Your task to perform on an android device: toggle show notifications on the lock screen Image 0: 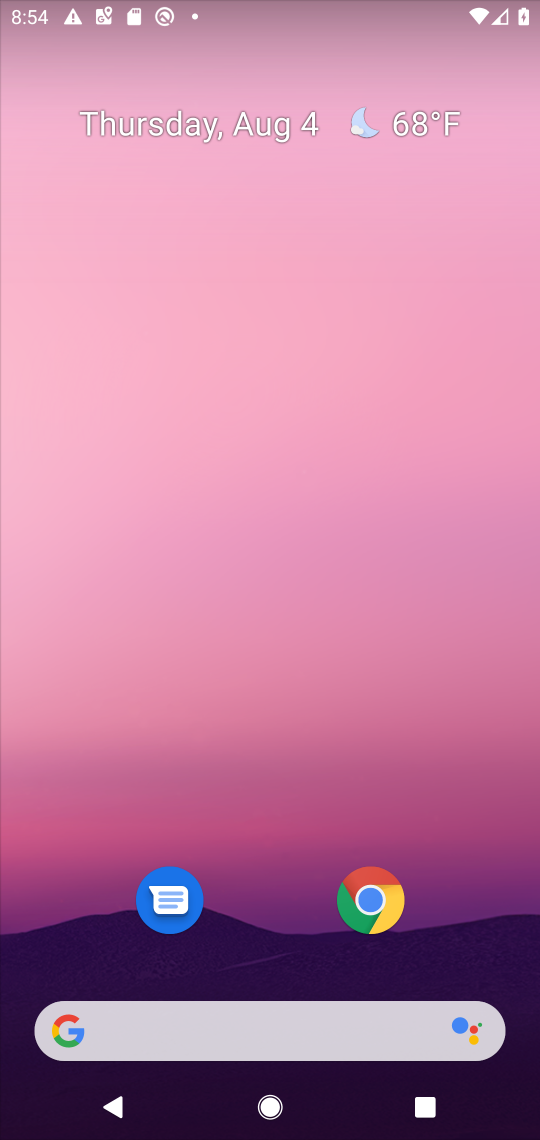
Step 0: drag from (263, 942) to (219, 399)
Your task to perform on an android device: toggle show notifications on the lock screen Image 1: 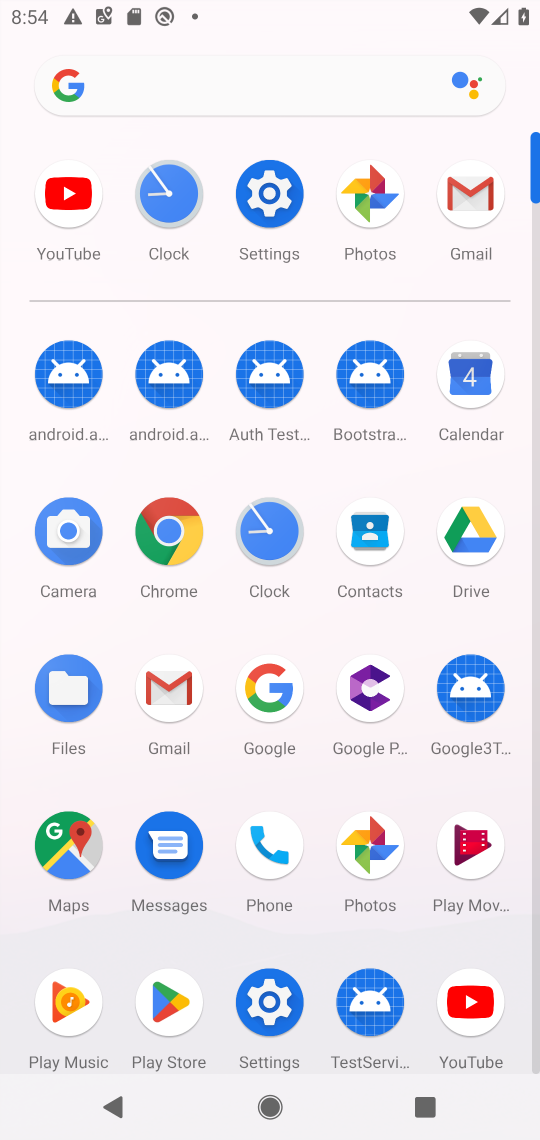
Step 1: click (264, 205)
Your task to perform on an android device: toggle show notifications on the lock screen Image 2: 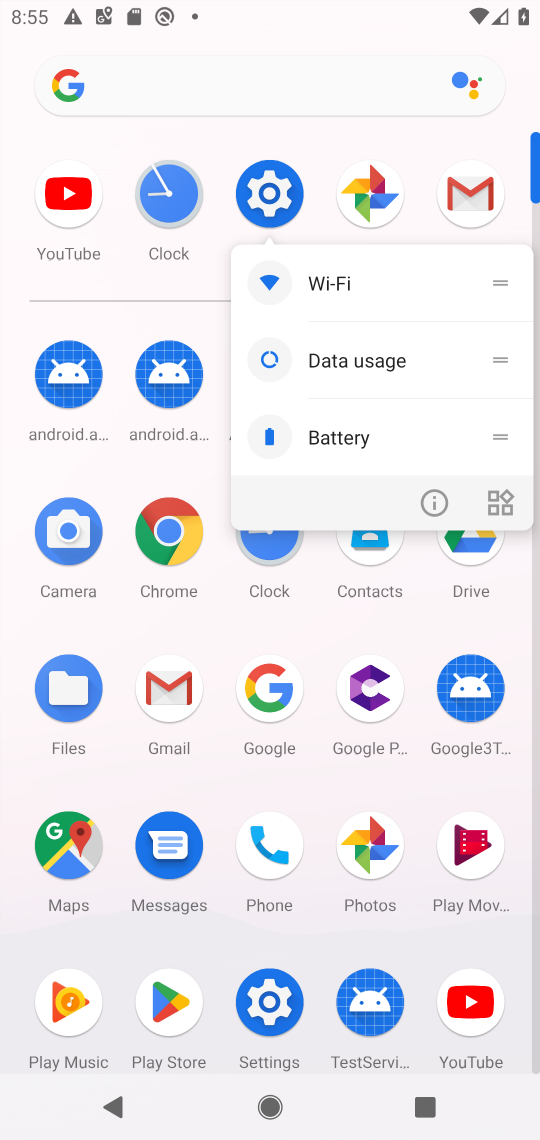
Step 2: click (271, 198)
Your task to perform on an android device: toggle show notifications on the lock screen Image 3: 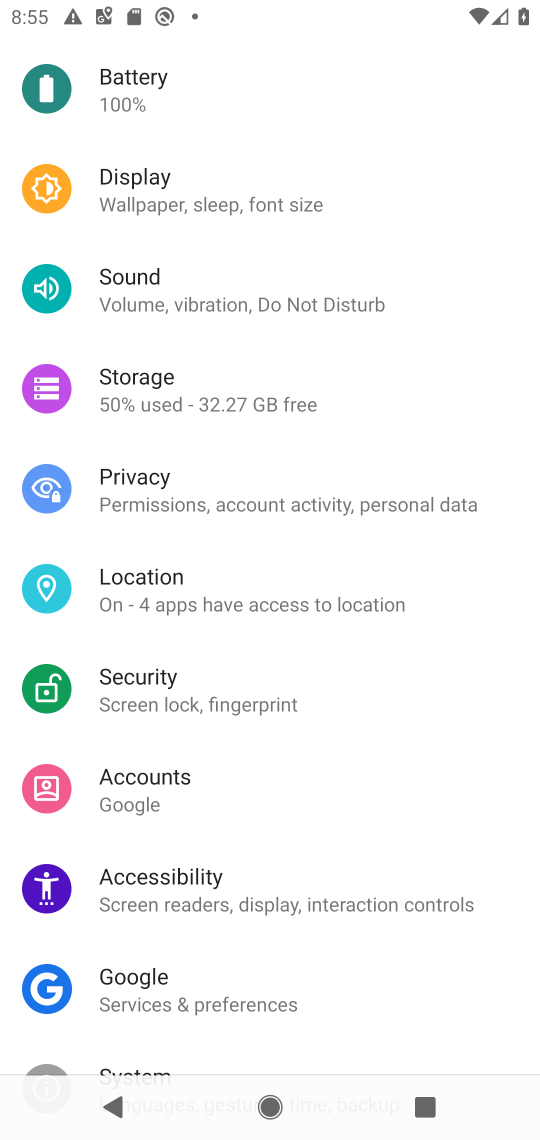
Step 3: drag from (216, 356) to (196, 588)
Your task to perform on an android device: toggle show notifications on the lock screen Image 4: 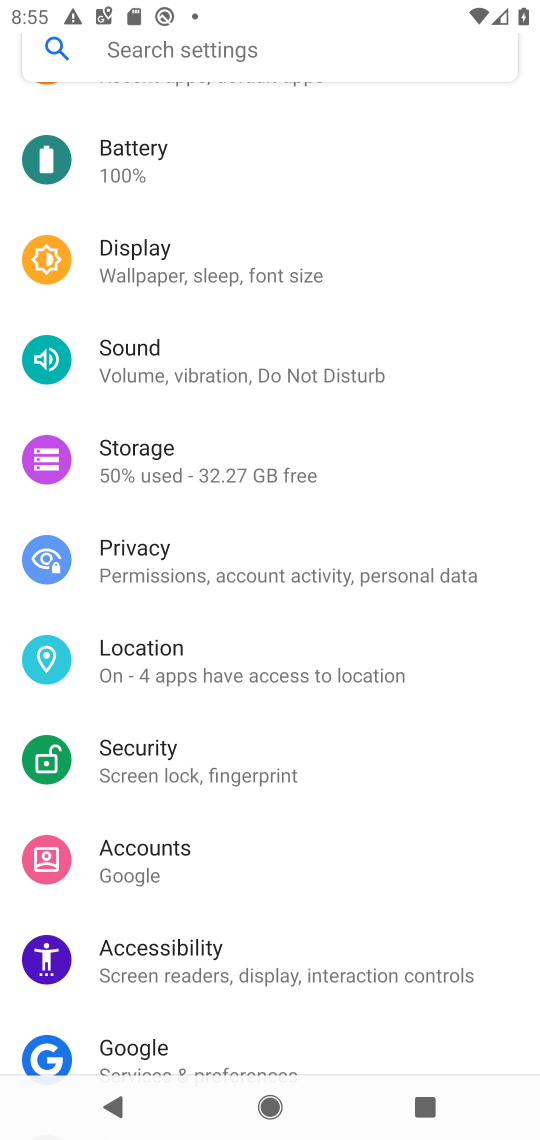
Step 4: drag from (230, 281) to (231, 633)
Your task to perform on an android device: toggle show notifications on the lock screen Image 5: 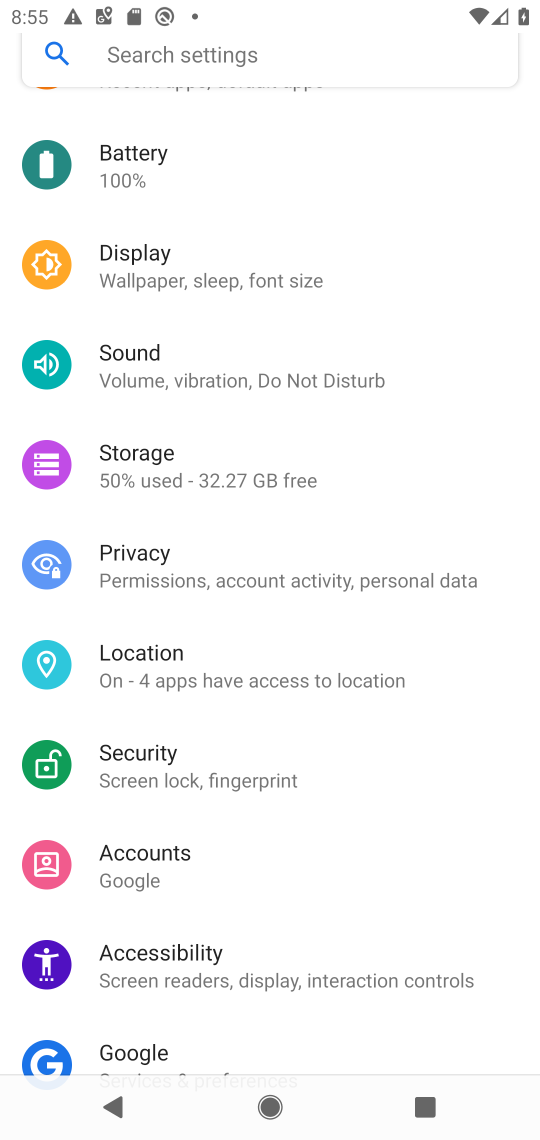
Step 5: drag from (212, 159) to (215, 546)
Your task to perform on an android device: toggle show notifications on the lock screen Image 6: 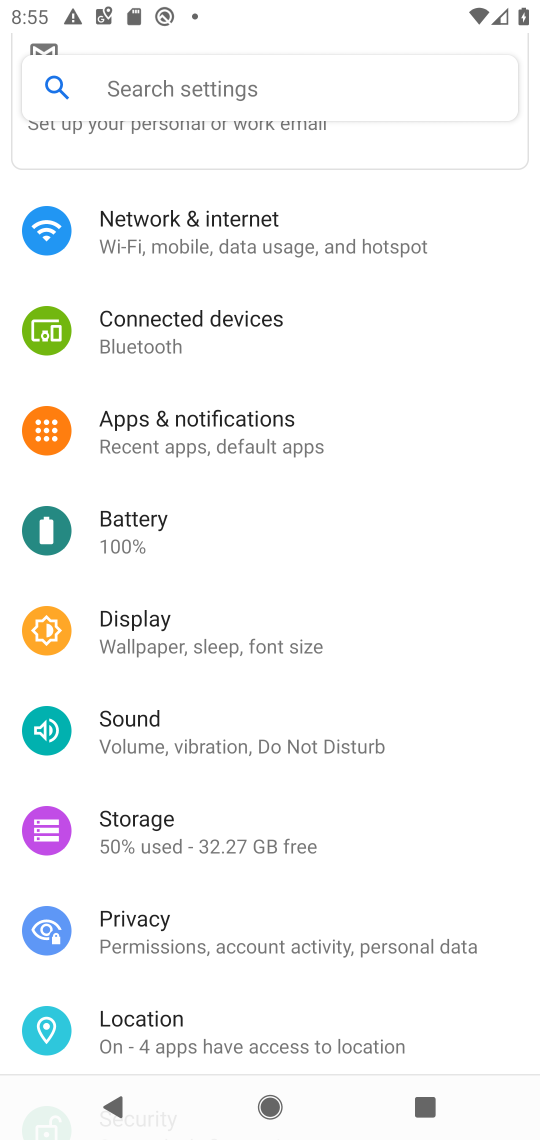
Step 6: click (152, 424)
Your task to perform on an android device: toggle show notifications on the lock screen Image 7: 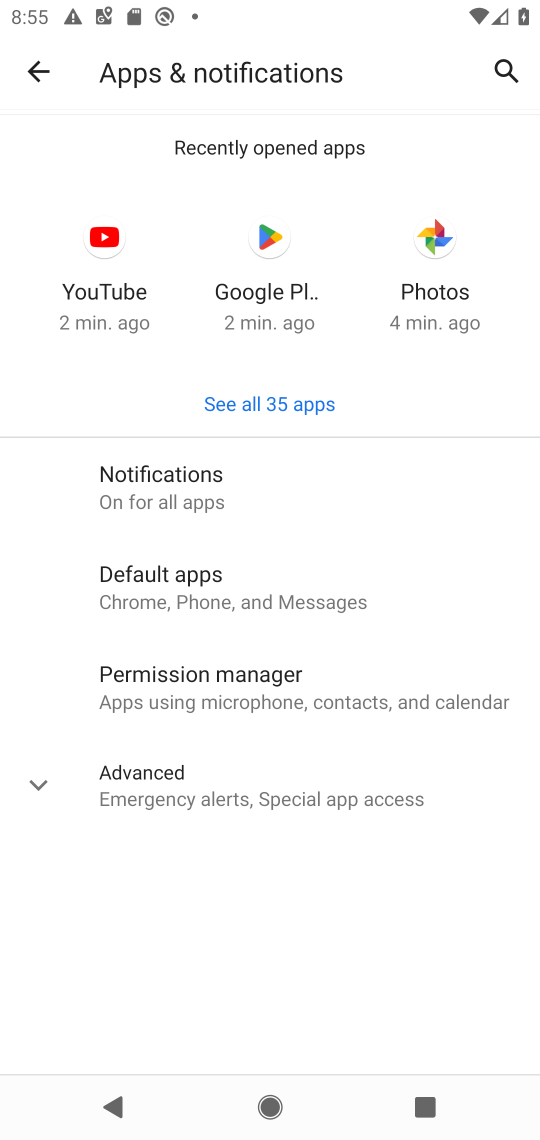
Step 7: click (152, 489)
Your task to perform on an android device: toggle show notifications on the lock screen Image 8: 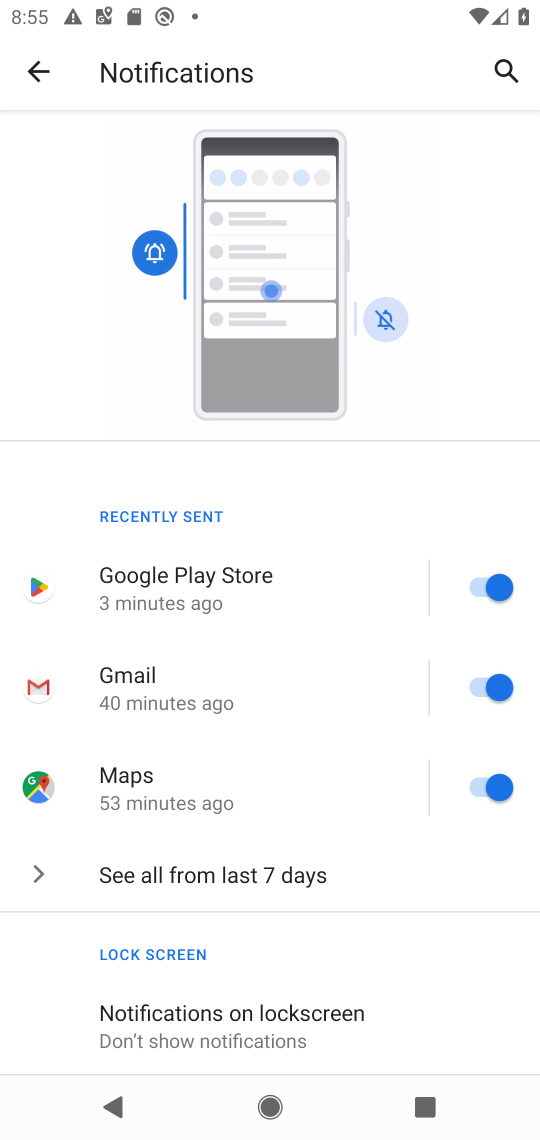
Step 8: click (274, 1038)
Your task to perform on an android device: toggle show notifications on the lock screen Image 9: 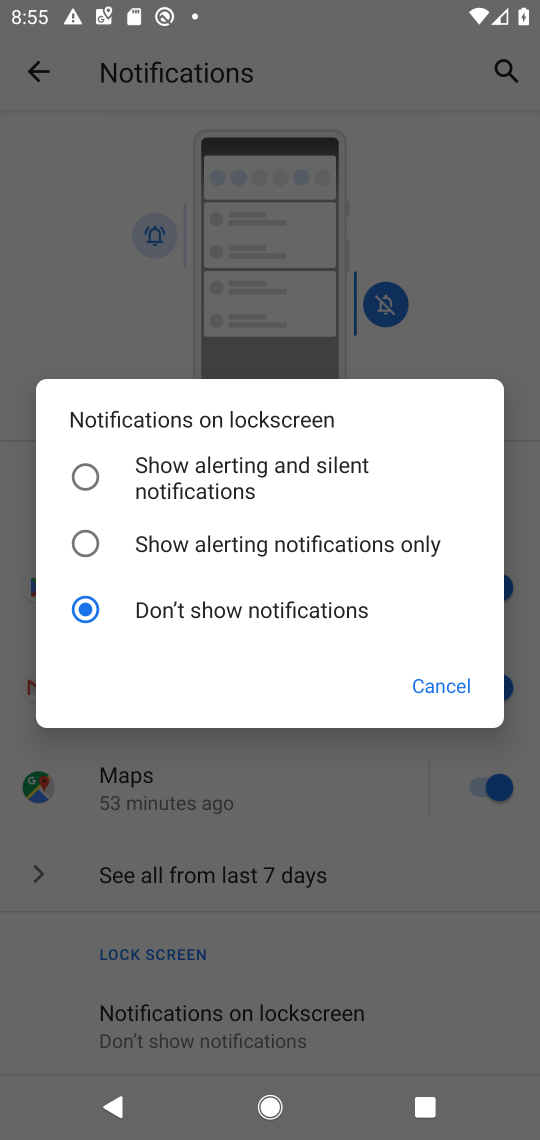
Step 9: click (80, 468)
Your task to perform on an android device: toggle show notifications on the lock screen Image 10: 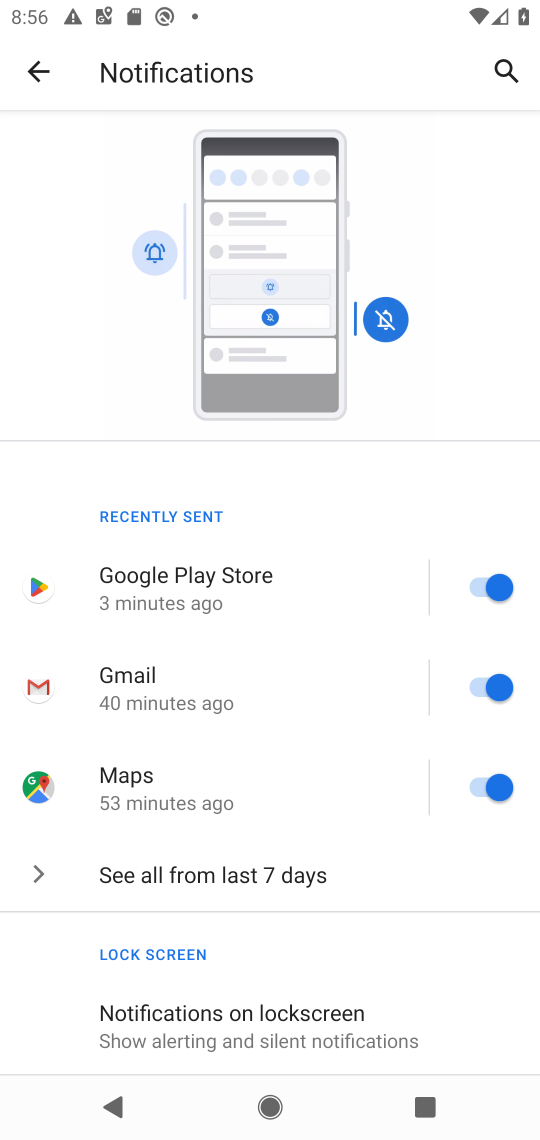
Step 10: task complete